Your task to perform on an android device: toggle translation in the chrome app Image 0: 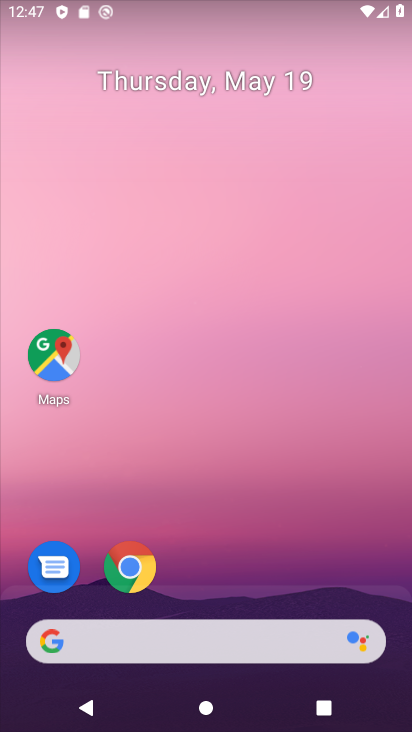
Step 0: press home button
Your task to perform on an android device: toggle translation in the chrome app Image 1: 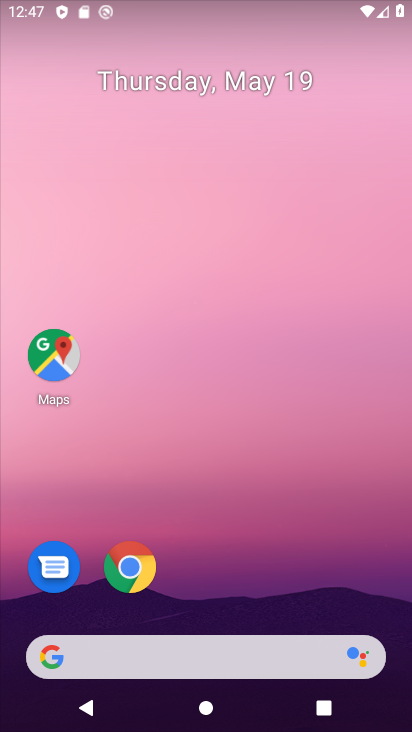
Step 1: click (133, 572)
Your task to perform on an android device: toggle translation in the chrome app Image 2: 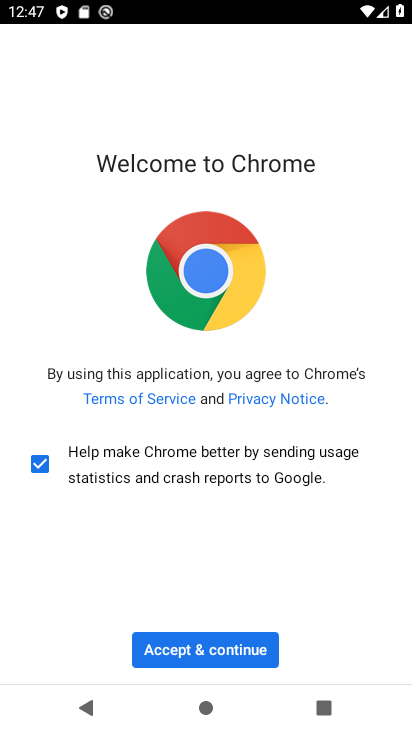
Step 2: click (172, 655)
Your task to perform on an android device: toggle translation in the chrome app Image 3: 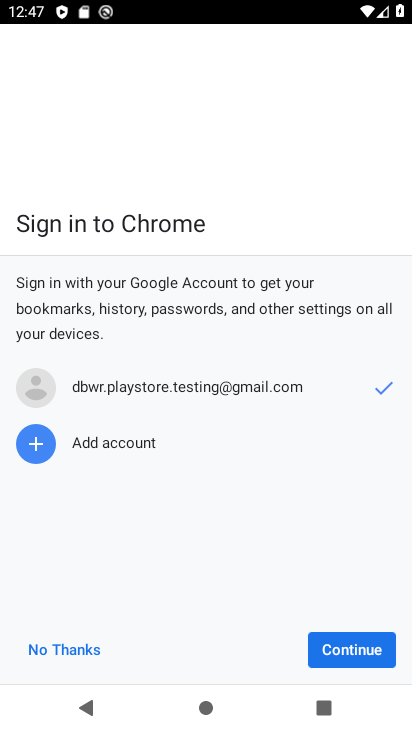
Step 3: click (356, 640)
Your task to perform on an android device: toggle translation in the chrome app Image 4: 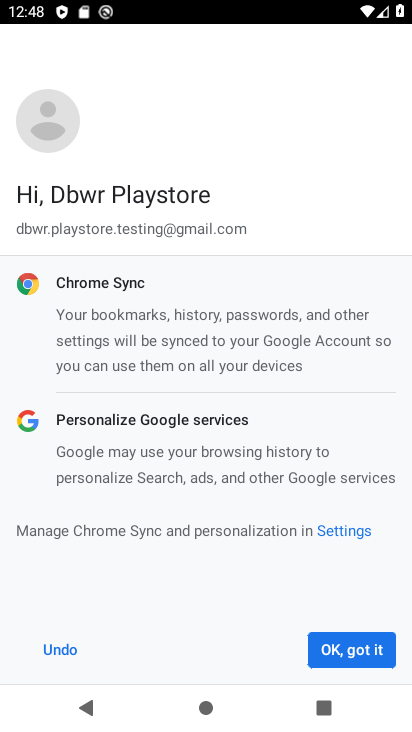
Step 4: click (335, 650)
Your task to perform on an android device: toggle translation in the chrome app Image 5: 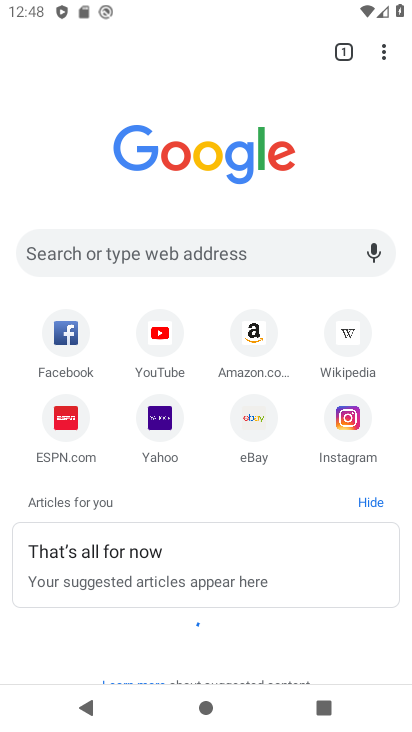
Step 5: drag from (381, 53) to (280, 438)
Your task to perform on an android device: toggle translation in the chrome app Image 6: 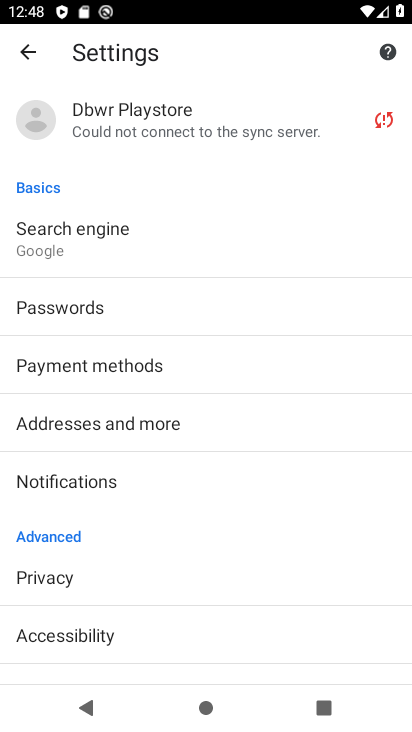
Step 6: drag from (120, 618) to (247, 218)
Your task to perform on an android device: toggle translation in the chrome app Image 7: 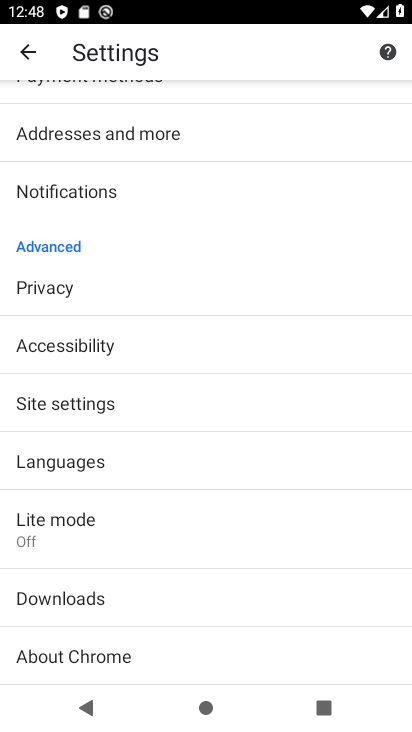
Step 7: click (80, 468)
Your task to perform on an android device: toggle translation in the chrome app Image 8: 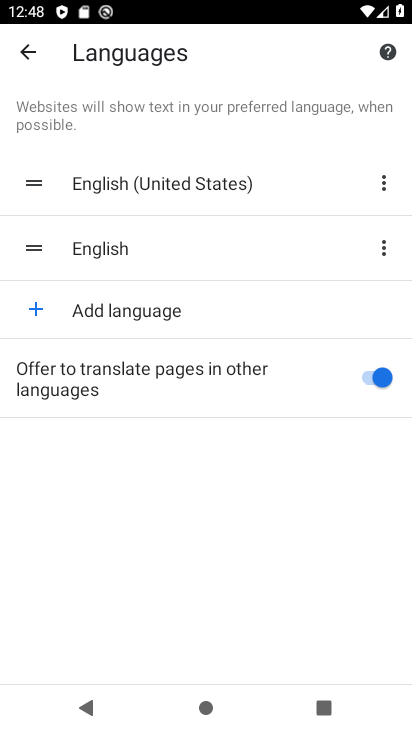
Step 8: click (367, 371)
Your task to perform on an android device: toggle translation in the chrome app Image 9: 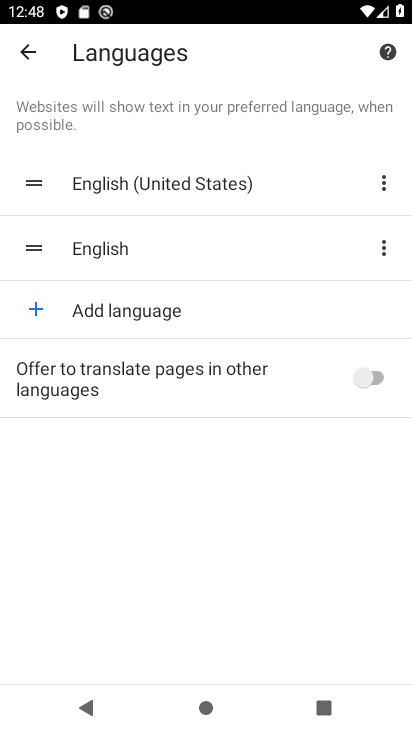
Step 9: task complete